Your task to perform on an android device: set the stopwatch Image 0: 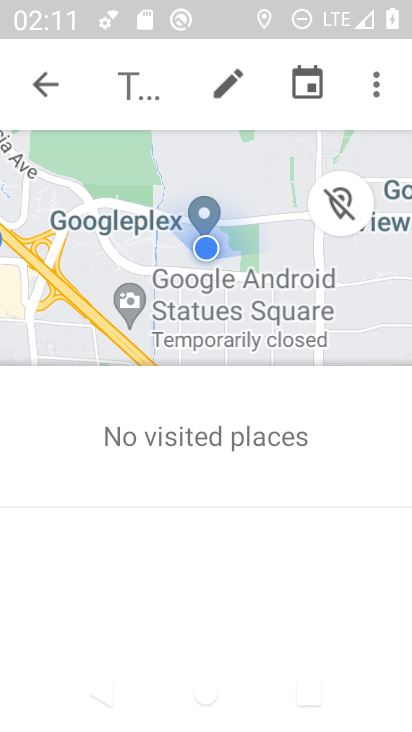
Step 0: press home button
Your task to perform on an android device: set the stopwatch Image 1: 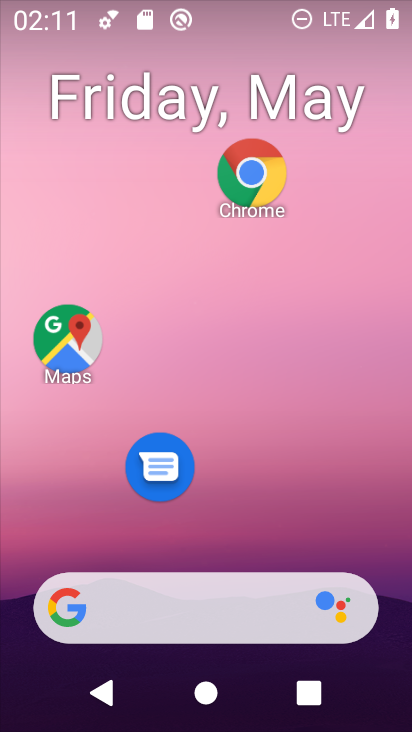
Step 1: drag from (257, 640) to (273, 83)
Your task to perform on an android device: set the stopwatch Image 2: 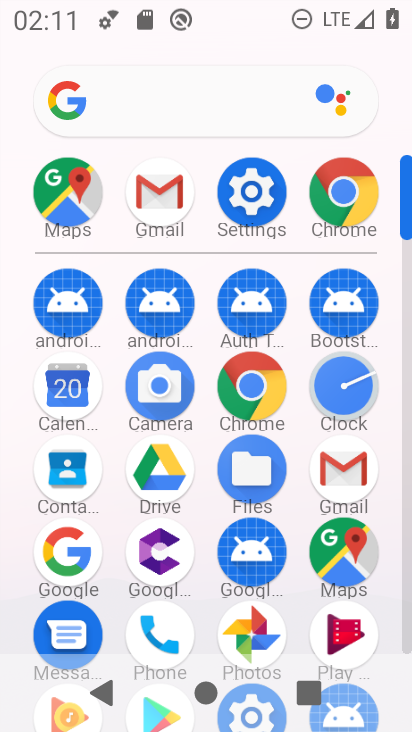
Step 2: click (333, 395)
Your task to perform on an android device: set the stopwatch Image 3: 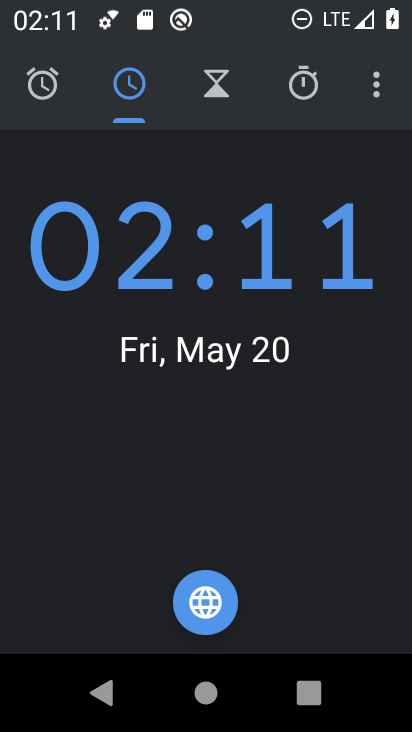
Step 3: click (290, 97)
Your task to perform on an android device: set the stopwatch Image 4: 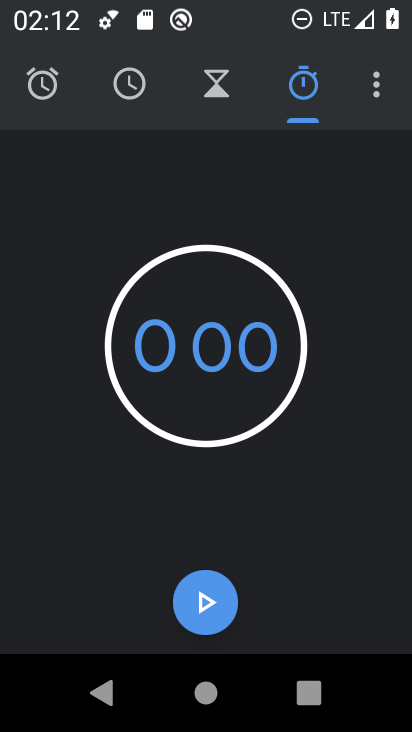
Step 4: click (208, 605)
Your task to perform on an android device: set the stopwatch Image 5: 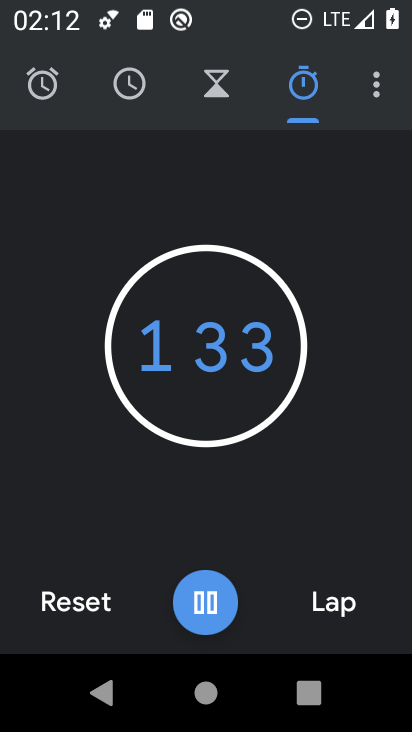
Step 5: click (208, 605)
Your task to perform on an android device: set the stopwatch Image 6: 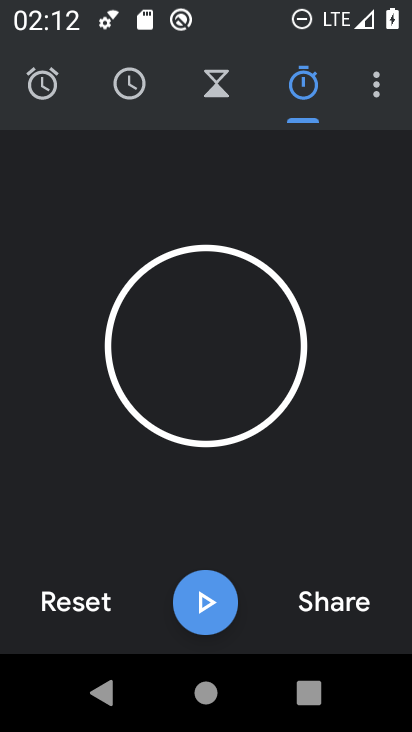
Step 6: task complete